Your task to perform on an android device: Go to notification settings Image 0: 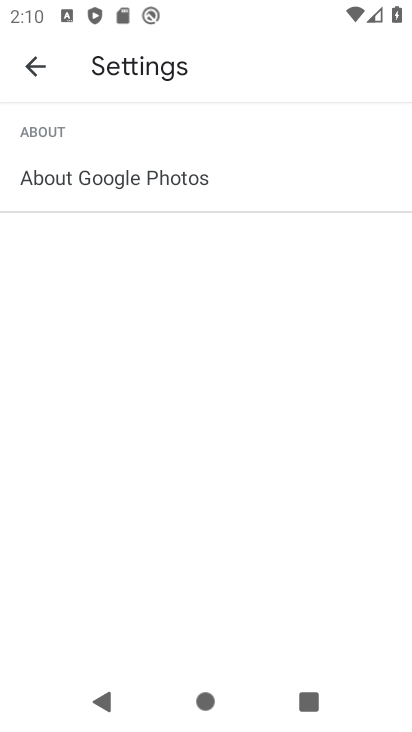
Step 0: press home button
Your task to perform on an android device: Go to notification settings Image 1: 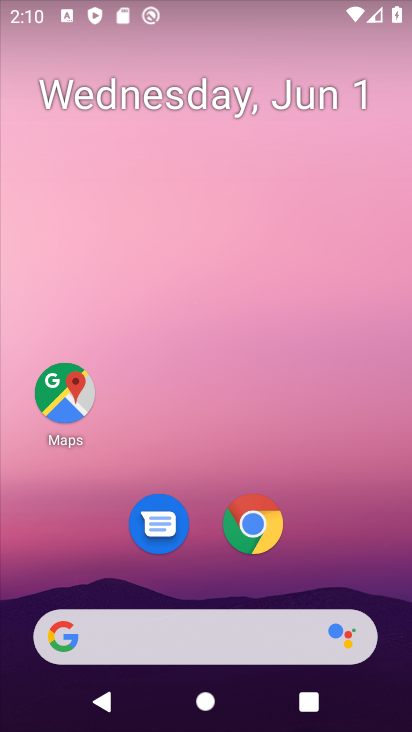
Step 1: drag from (315, 548) to (199, 56)
Your task to perform on an android device: Go to notification settings Image 2: 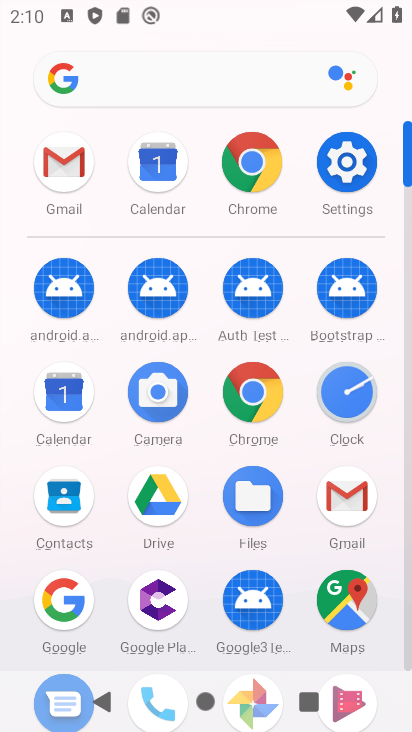
Step 2: click (344, 161)
Your task to perform on an android device: Go to notification settings Image 3: 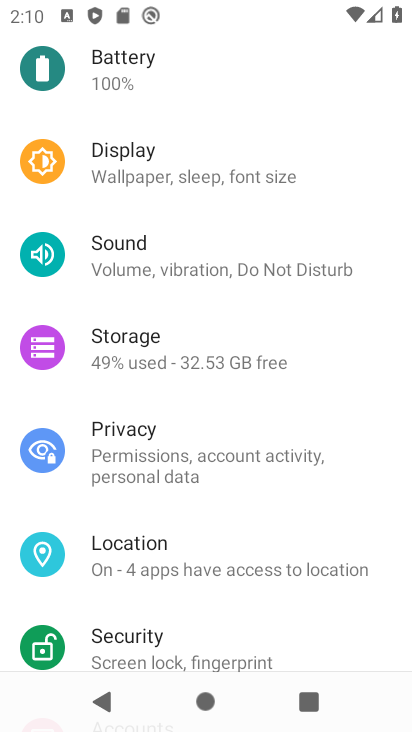
Step 3: drag from (207, 135) to (289, 614)
Your task to perform on an android device: Go to notification settings Image 4: 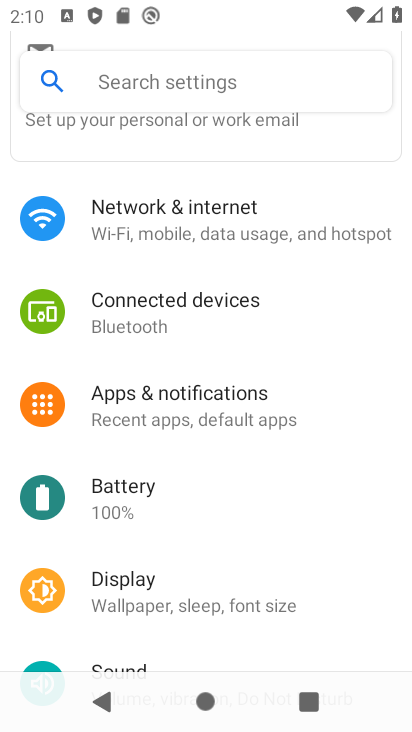
Step 4: click (229, 400)
Your task to perform on an android device: Go to notification settings Image 5: 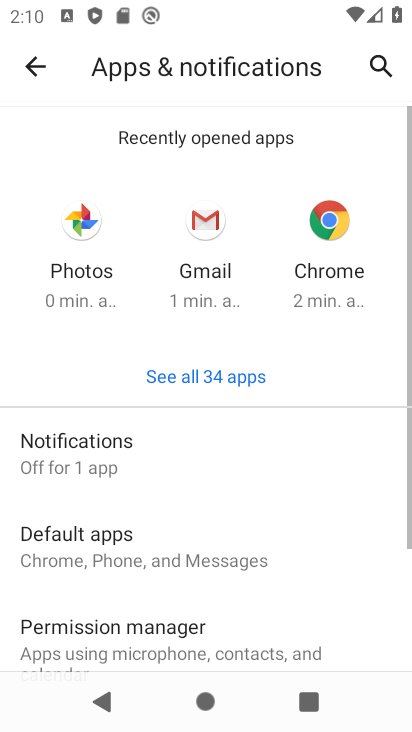
Step 5: click (214, 469)
Your task to perform on an android device: Go to notification settings Image 6: 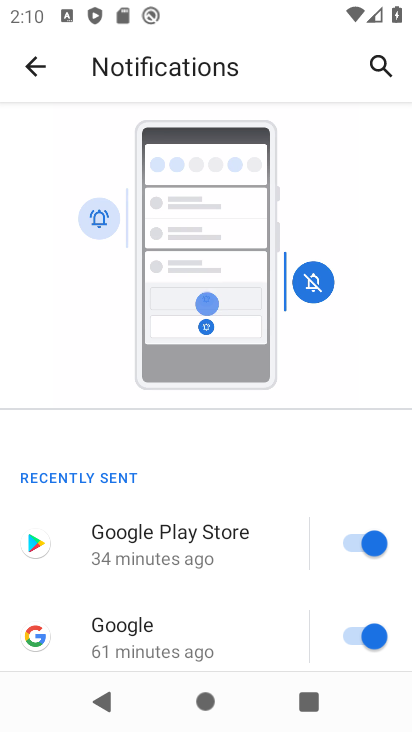
Step 6: task complete